Your task to perform on an android device: Search for pizza restaurants on Maps Image 0: 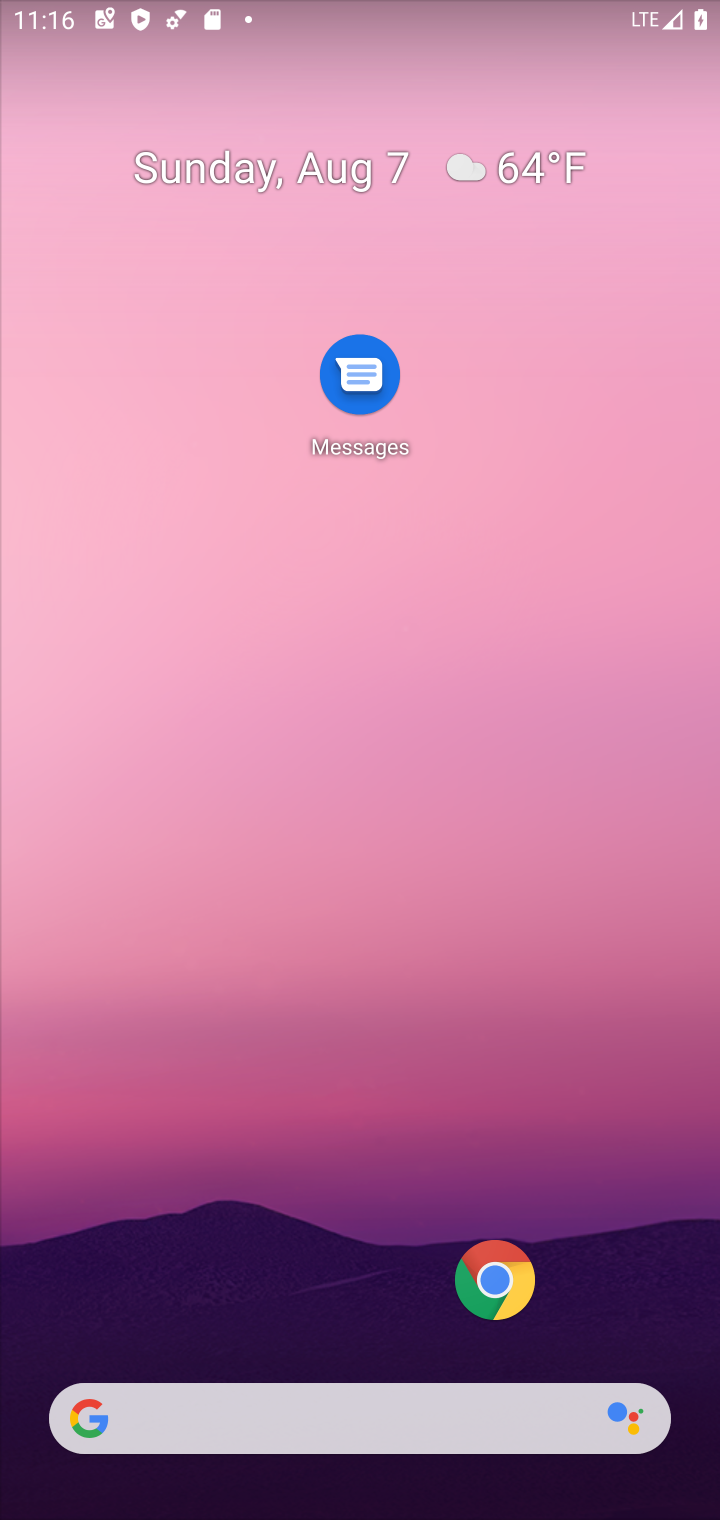
Step 0: drag from (335, 1242) to (474, 325)
Your task to perform on an android device: Search for pizza restaurants on Maps Image 1: 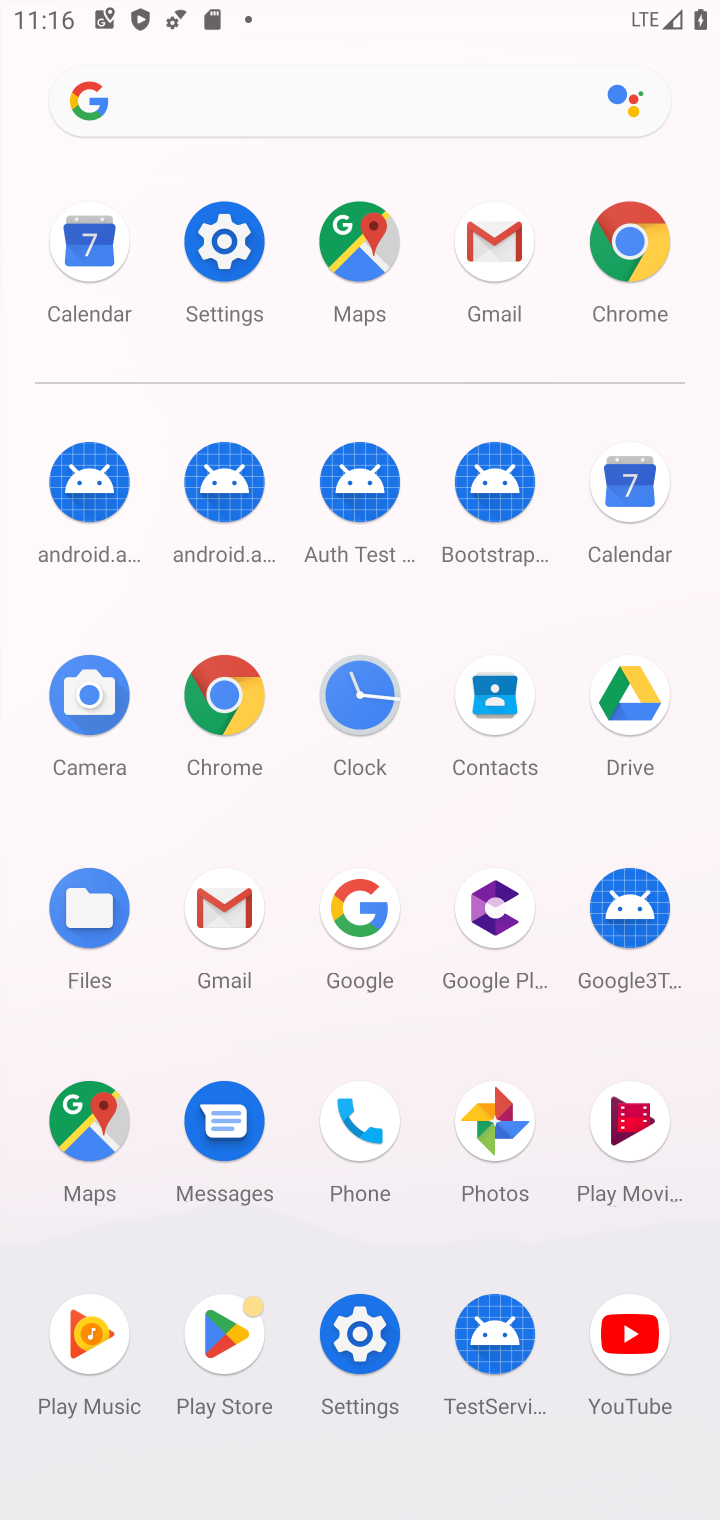
Step 1: click (360, 240)
Your task to perform on an android device: Search for pizza restaurants on Maps Image 2: 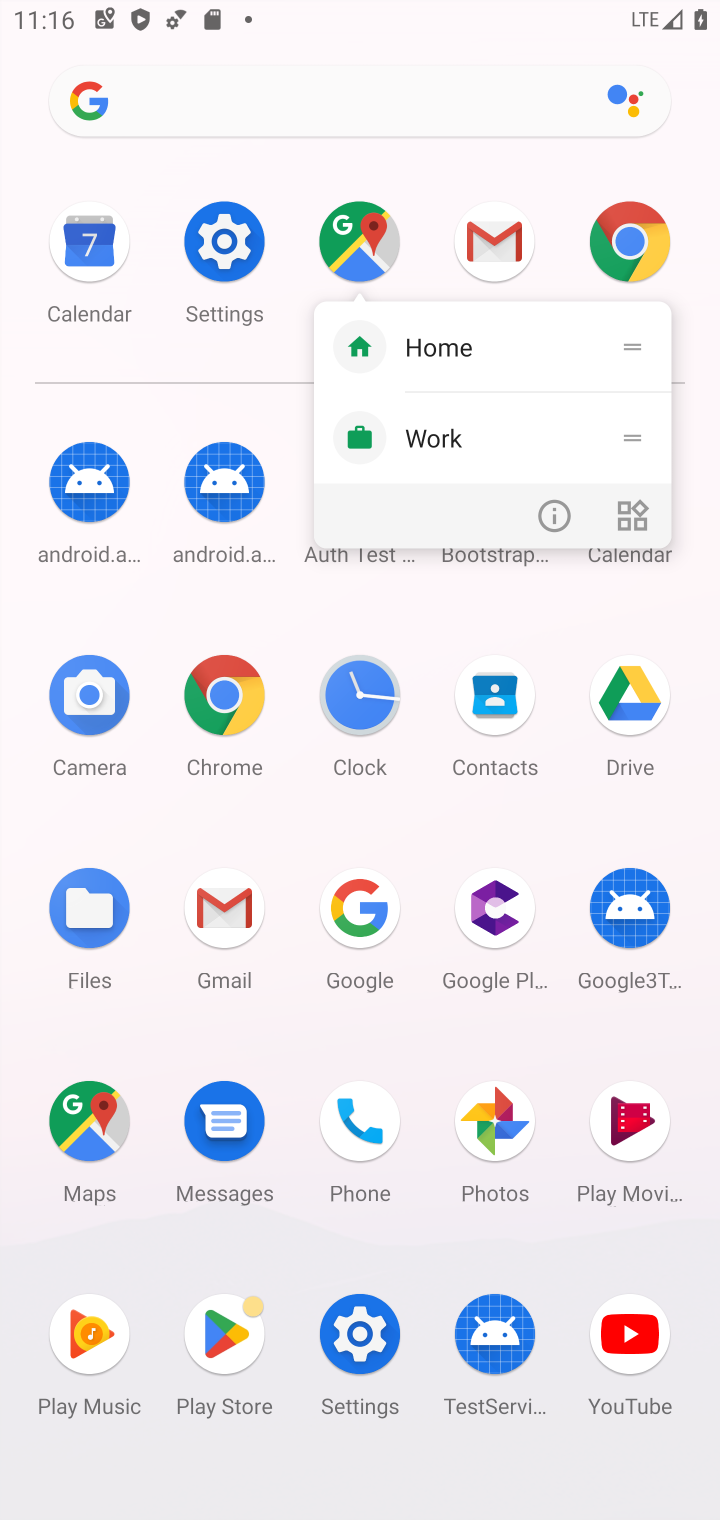
Step 2: click (360, 240)
Your task to perform on an android device: Search for pizza restaurants on Maps Image 3: 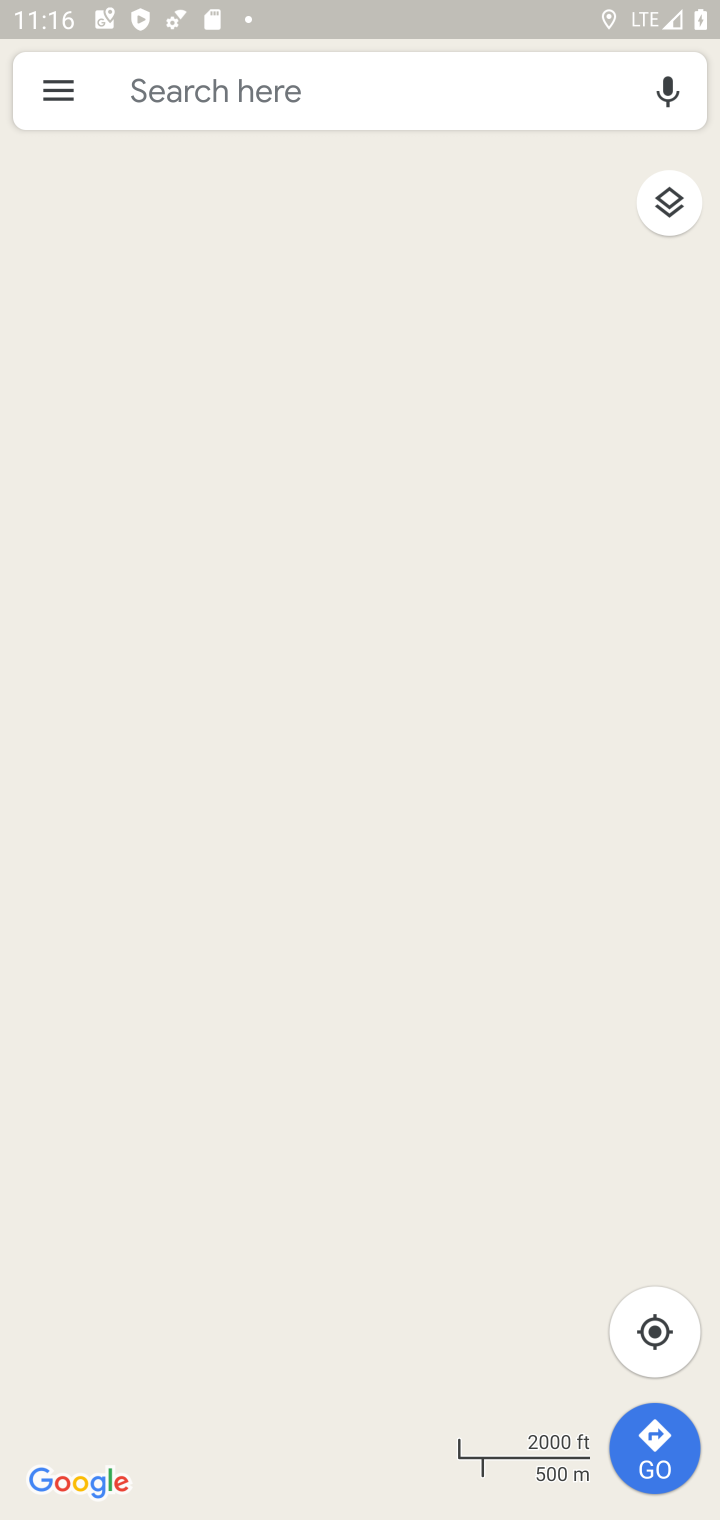
Step 3: click (334, 98)
Your task to perform on an android device: Search for pizza restaurants on Maps Image 4: 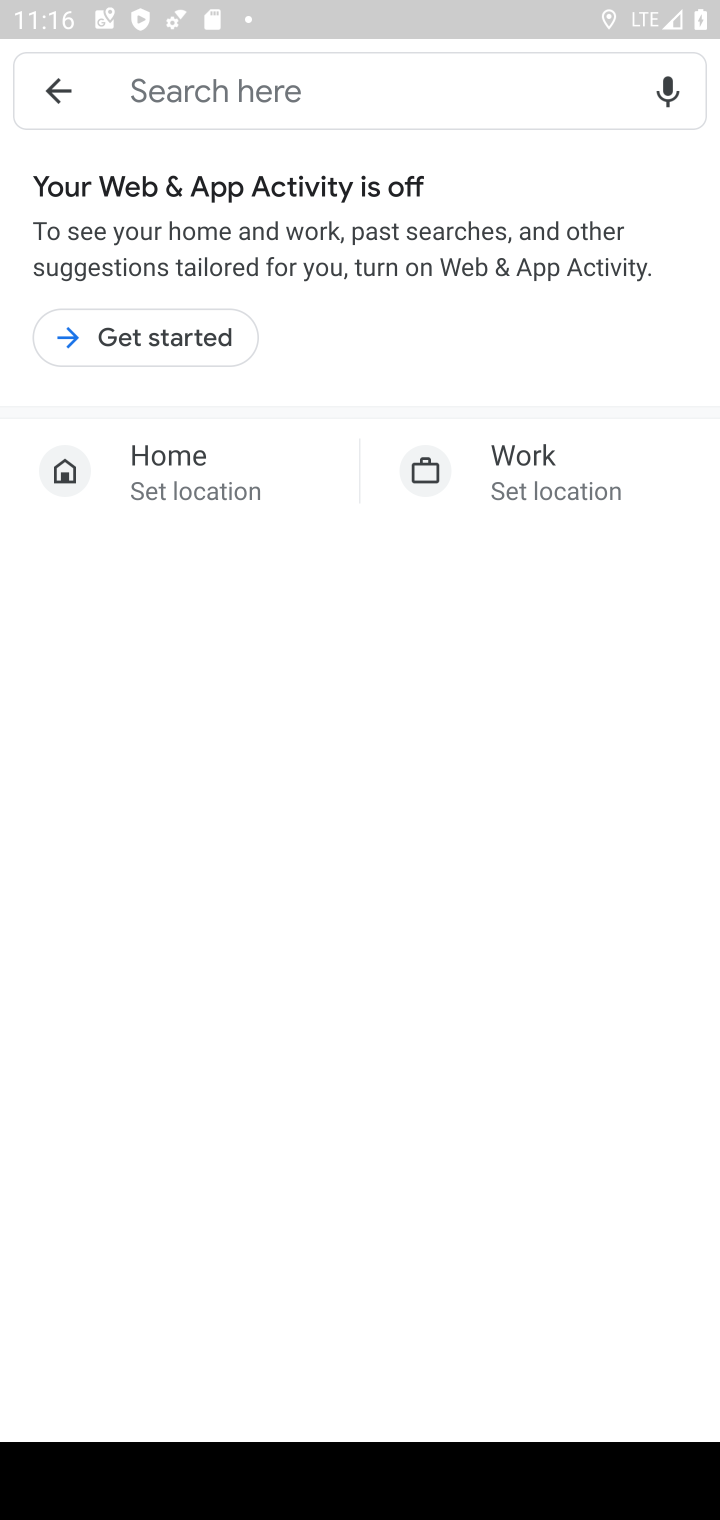
Step 4: type "pizza restaurants"
Your task to perform on an android device: Search for pizza restaurants on Maps Image 5: 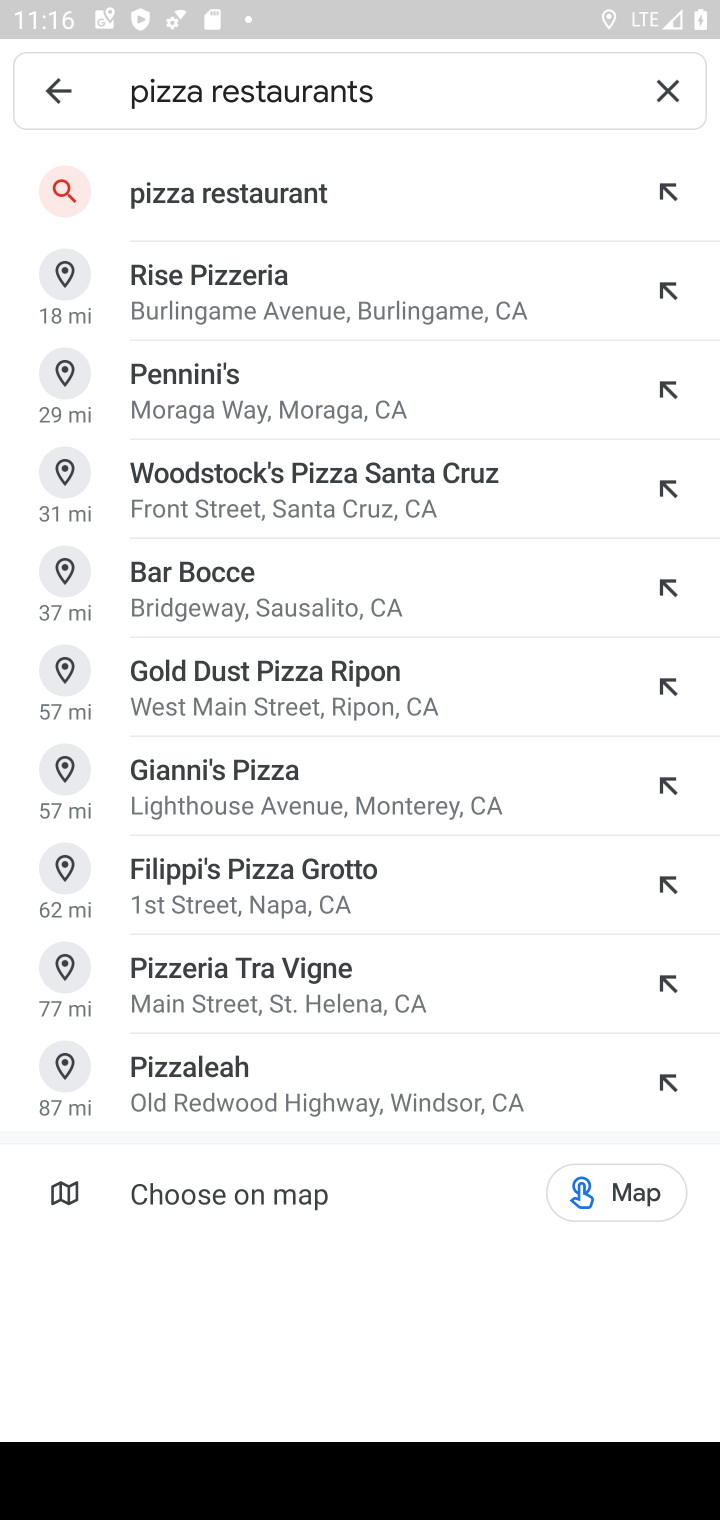
Step 5: click (297, 195)
Your task to perform on an android device: Search for pizza restaurants on Maps Image 6: 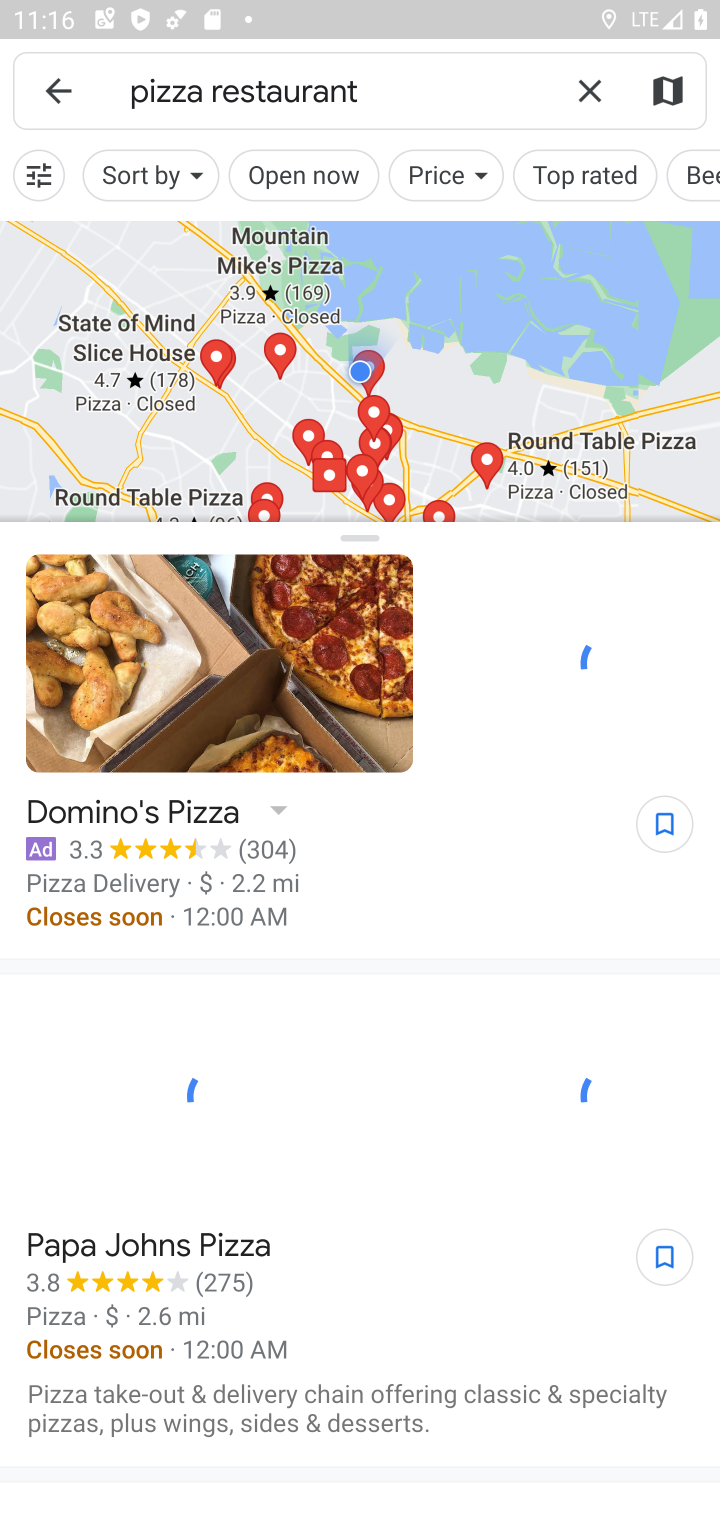
Step 6: task complete